Your task to perform on an android device: toggle javascript in the chrome app Image 0: 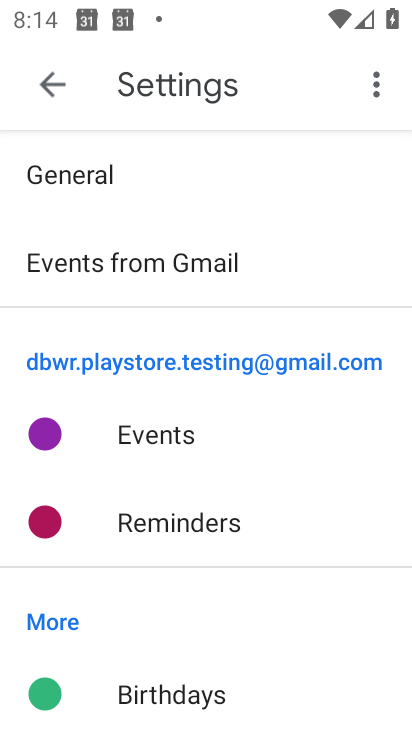
Step 0: press home button
Your task to perform on an android device: toggle javascript in the chrome app Image 1: 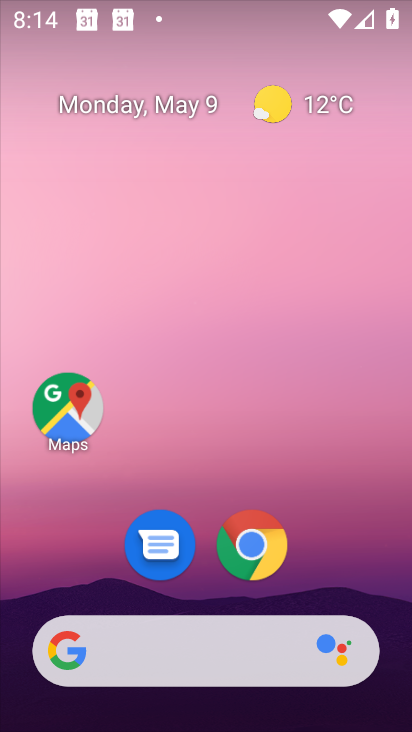
Step 1: click (252, 544)
Your task to perform on an android device: toggle javascript in the chrome app Image 2: 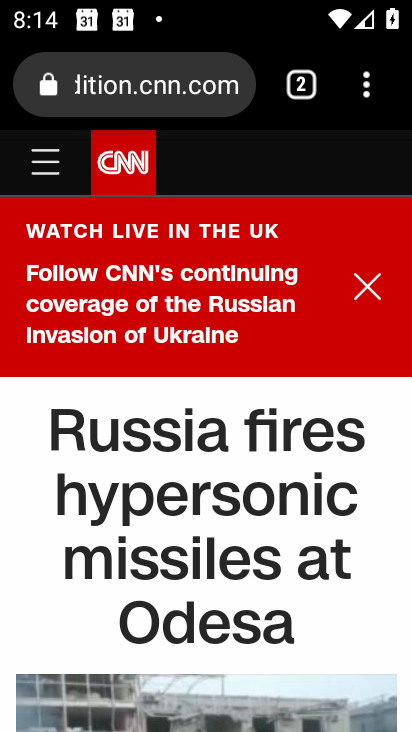
Step 2: click (366, 97)
Your task to perform on an android device: toggle javascript in the chrome app Image 3: 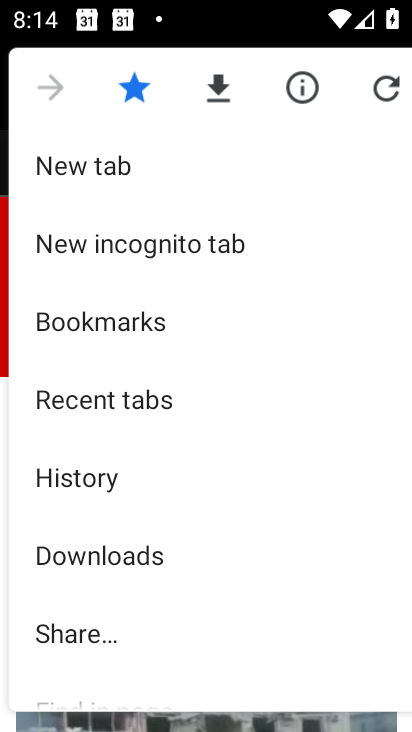
Step 3: drag from (192, 534) to (182, 264)
Your task to perform on an android device: toggle javascript in the chrome app Image 4: 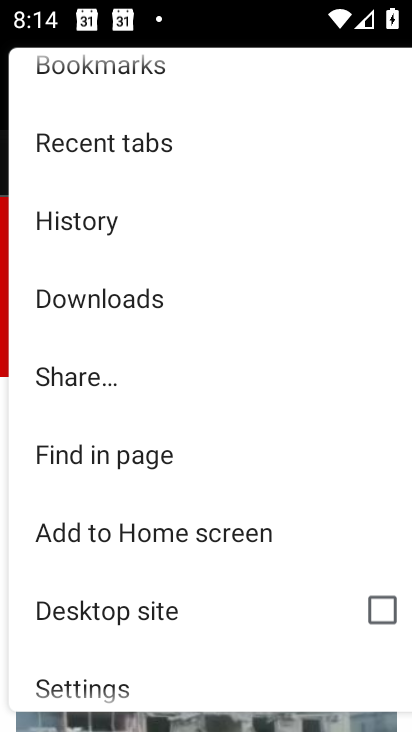
Step 4: drag from (167, 620) to (153, 402)
Your task to perform on an android device: toggle javascript in the chrome app Image 5: 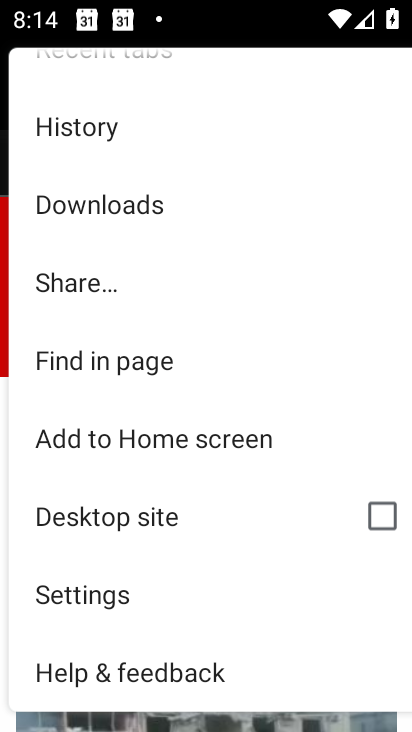
Step 5: click (98, 598)
Your task to perform on an android device: toggle javascript in the chrome app Image 6: 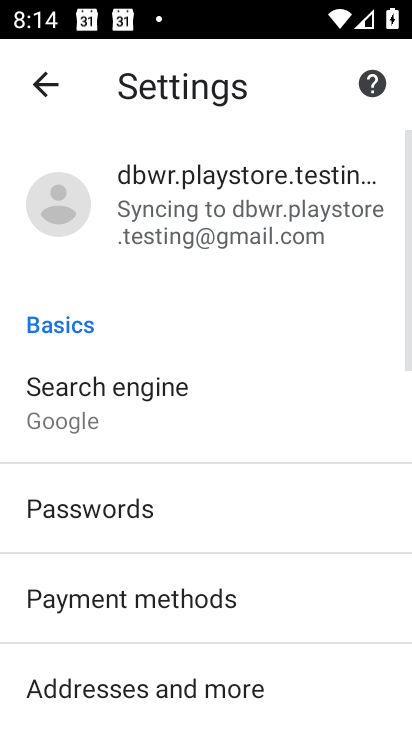
Step 6: drag from (198, 683) to (210, 406)
Your task to perform on an android device: toggle javascript in the chrome app Image 7: 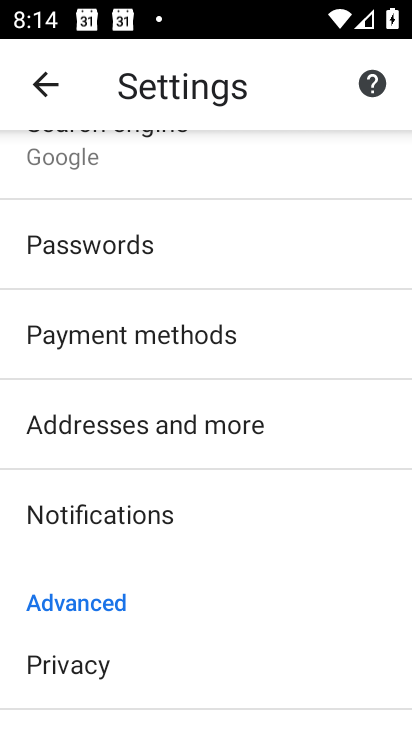
Step 7: drag from (186, 674) to (192, 448)
Your task to perform on an android device: toggle javascript in the chrome app Image 8: 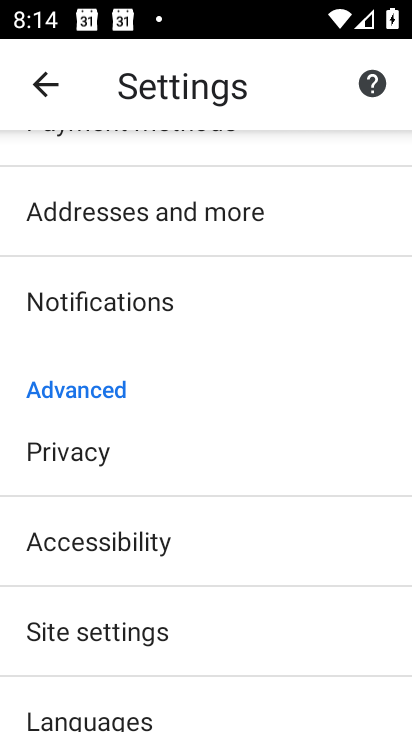
Step 8: drag from (188, 682) to (190, 517)
Your task to perform on an android device: toggle javascript in the chrome app Image 9: 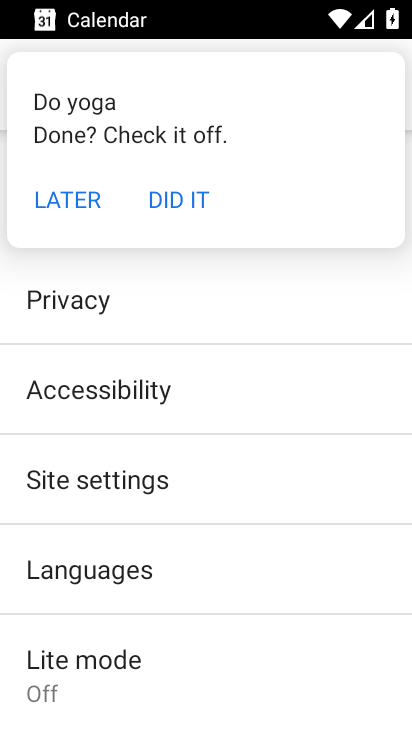
Step 9: click (124, 477)
Your task to perform on an android device: toggle javascript in the chrome app Image 10: 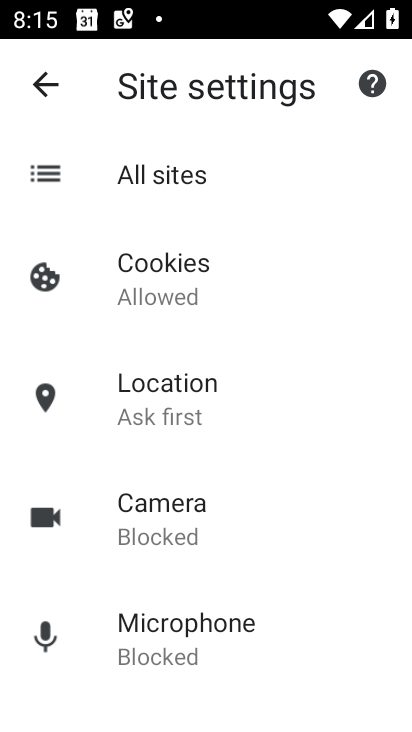
Step 10: drag from (166, 646) to (167, 303)
Your task to perform on an android device: toggle javascript in the chrome app Image 11: 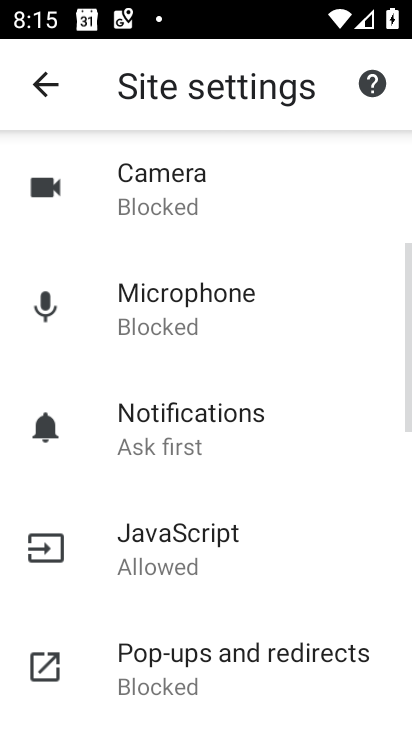
Step 11: drag from (195, 600) to (176, 383)
Your task to perform on an android device: toggle javascript in the chrome app Image 12: 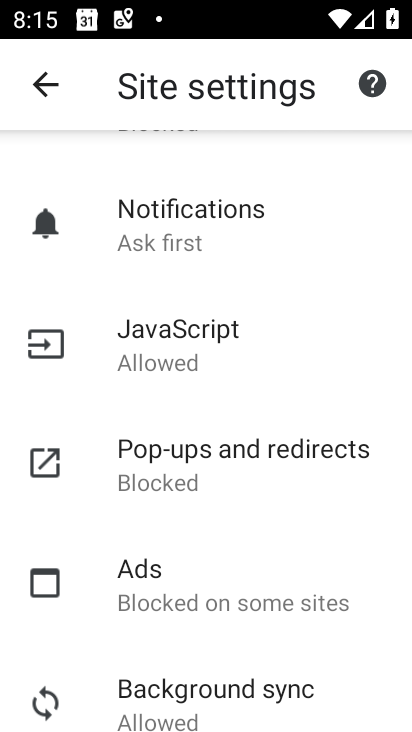
Step 12: drag from (184, 692) to (171, 351)
Your task to perform on an android device: toggle javascript in the chrome app Image 13: 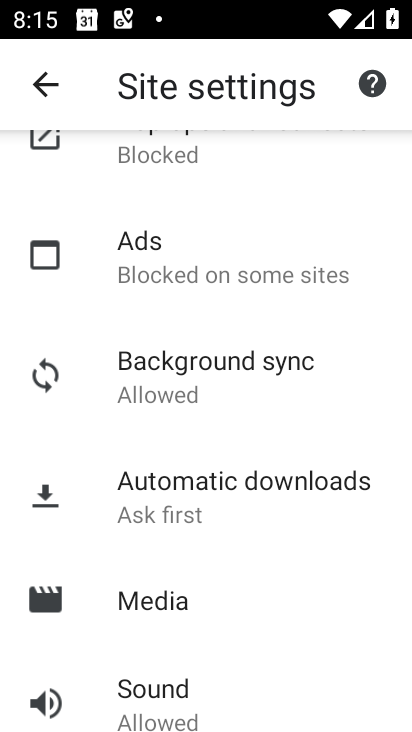
Step 13: drag from (182, 635) to (175, 239)
Your task to perform on an android device: toggle javascript in the chrome app Image 14: 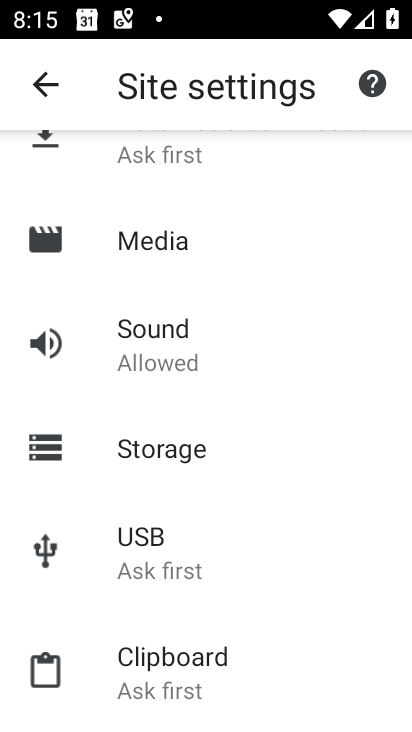
Step 14: drag from (214, 645) to (214, 431)
Your task to perform on an android device: toggle javascript in the chrome app Image 15: 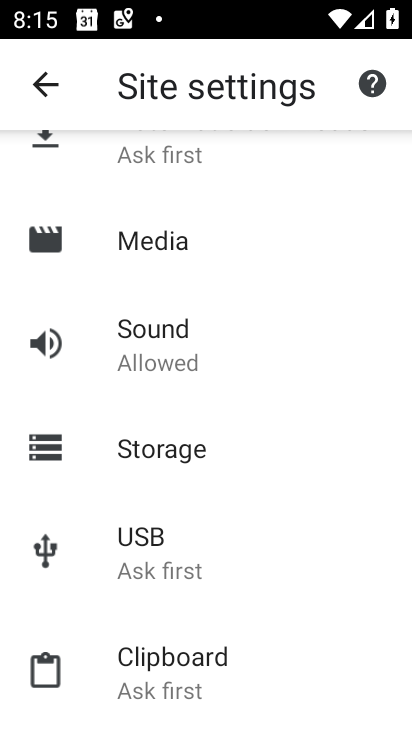
Step 15: drag from (190, 627) to (197, 364)
Your task to perform on an android device: toggle javascript in the chrome app Image 16: 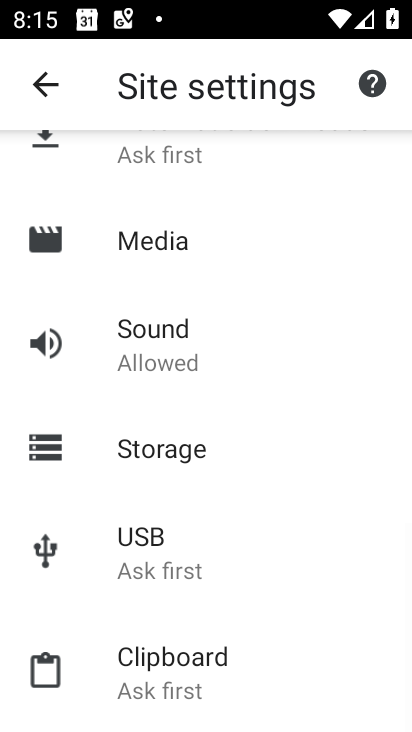
Step 16: drag from (217, 286) to (208, 570)
Your task to perform on an android device: toggle javascript in the chrome app Image 17: 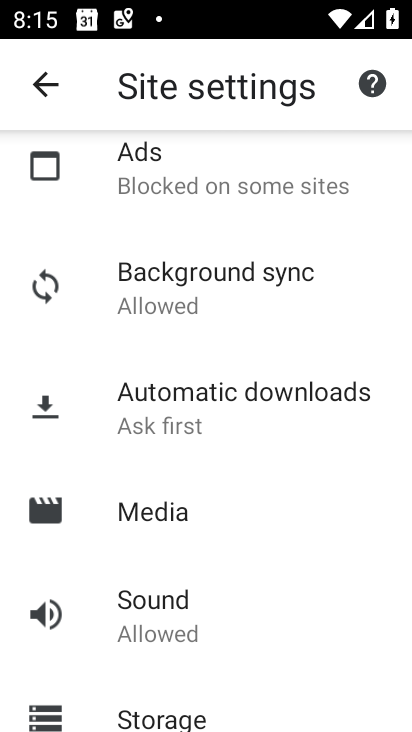
Step 17: drag from (252, 236) to (232, 559)
Your task to perform on an android device: toggle javascript in the chrome app Image 18: 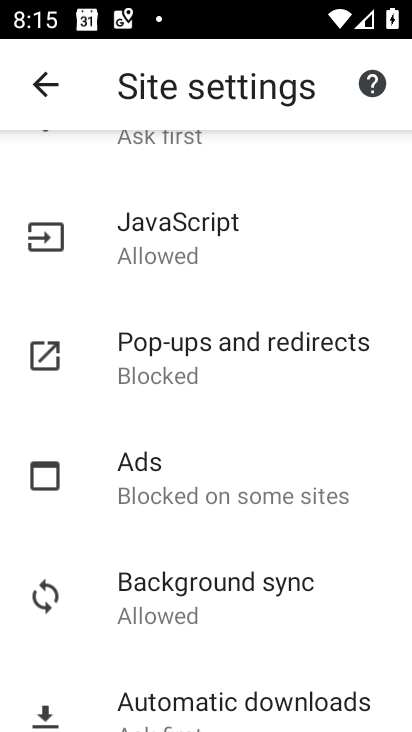
Step 18: click (184, 235)
Your task to perform on an android device: toggle javascript in the chrome app Image 19: 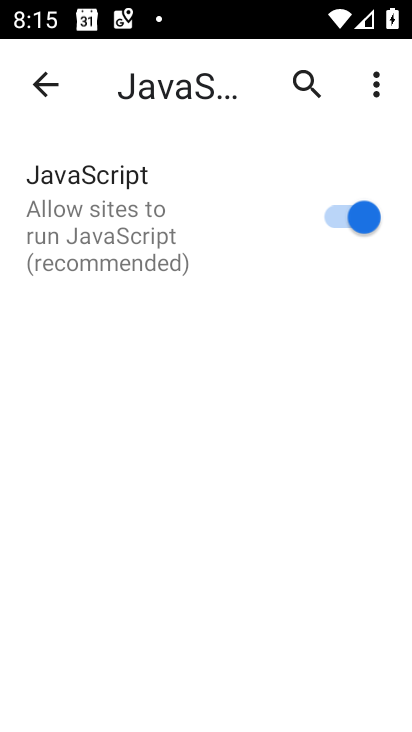
Step 19: click (342, 210)
Your task to perform on an android device: toggle javascript in the chrome app Image 20: 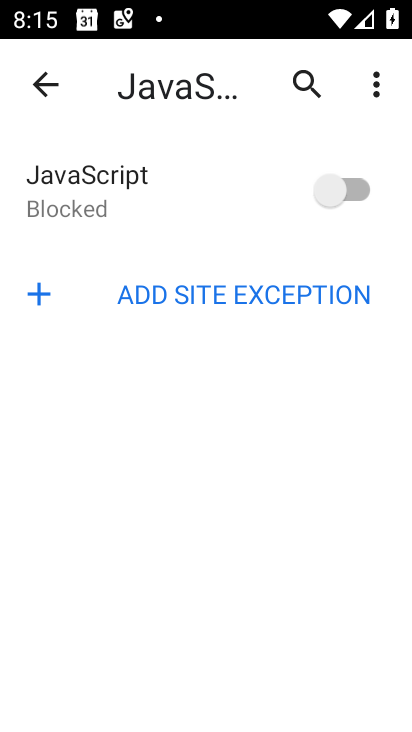
Step 20: task complete